Your task to perform on an android device: empty trash in the gmail app Image 0: 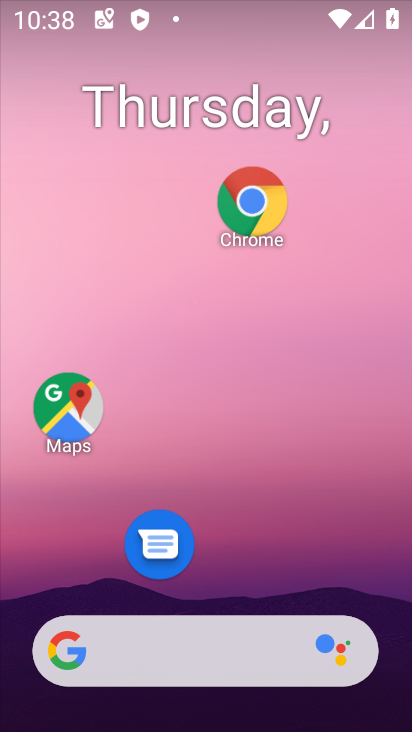
Step 0: click (233, 1)
Your task to perform on an android device: empty trash in the gmail app Image 1: 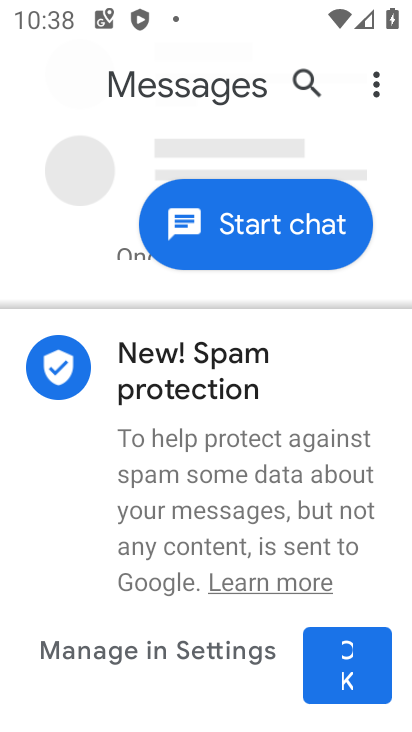
Step 1: press home button
Your task to perform on an android device: empty trash in the gmail app Image 2: 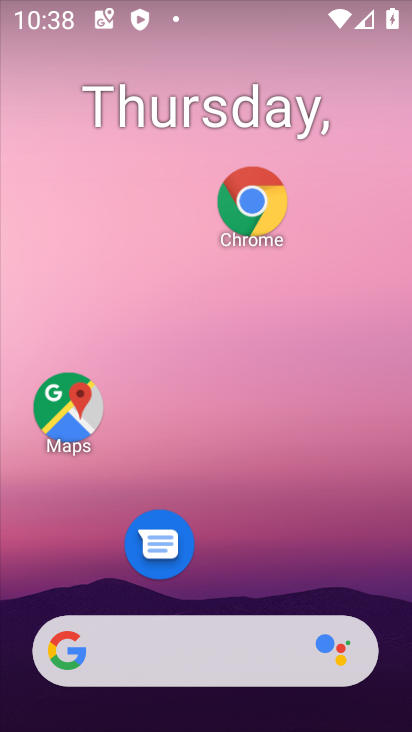
Step 2: drag from (232, 587) to (258, 42)
Your task to perform on an android device: empty trash in the gmail app Image 3: 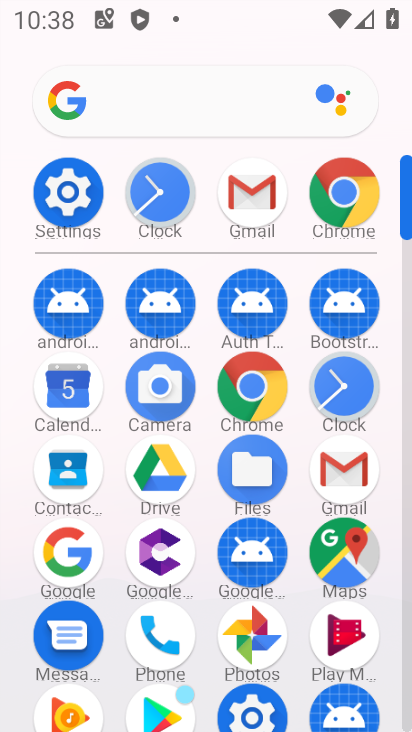
Step 3: click (345, 459)
Your task to perform on an android device: empty trash in the gmail app Image 4: 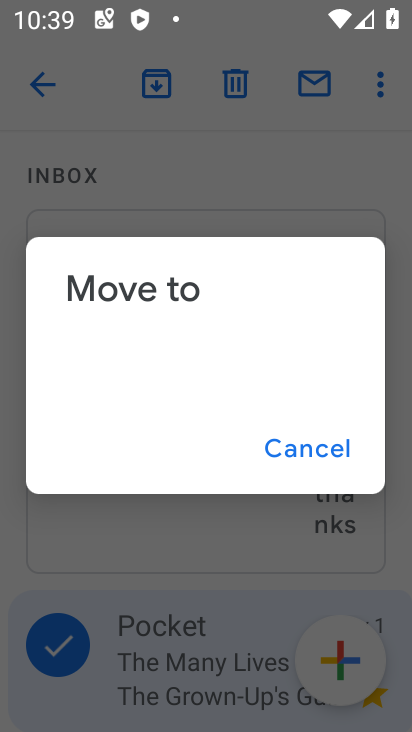
Step 4: click (304, 455)
Your task to perform on an android device: empty trash in the gmail app Image 5: 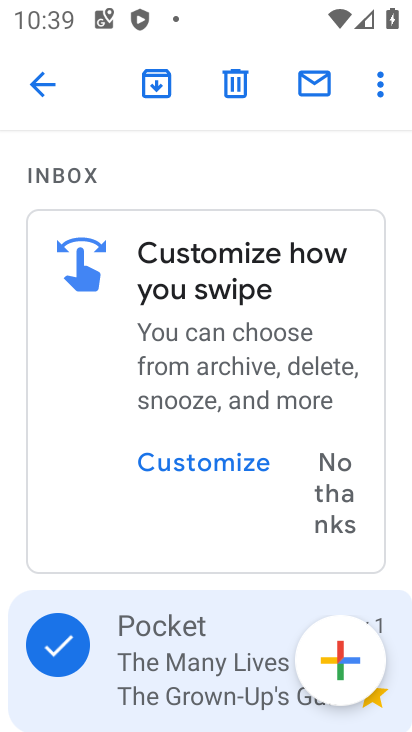
Step 5: click (51, 93)
Your task to perform on an android device: empty trash in the gmail app Image 6: 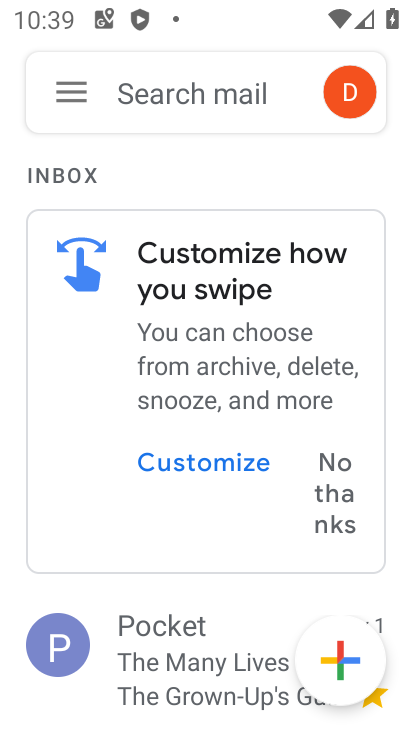
Step 6: click (70, 89)
Your task to perform on an android device: empty trash in the gmail app Image 7: 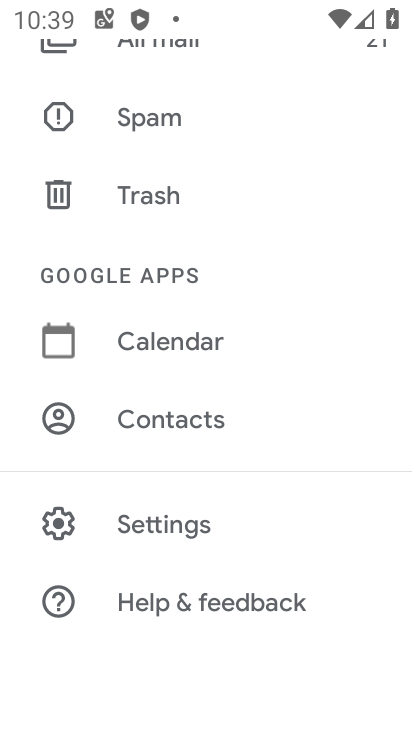
Step 7: click (94, 193)
Your task to perform on an android device: empty trash in the gmail app Image 8: 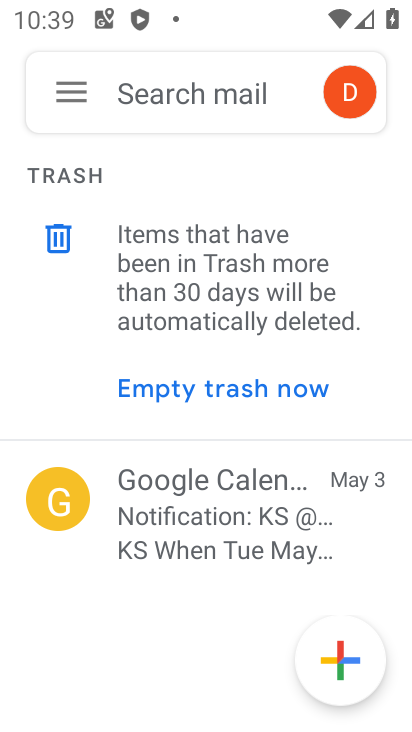
Step 8: click (242, 389)
Your task to perform on an android device: empty trash in the gmail app Image 9: 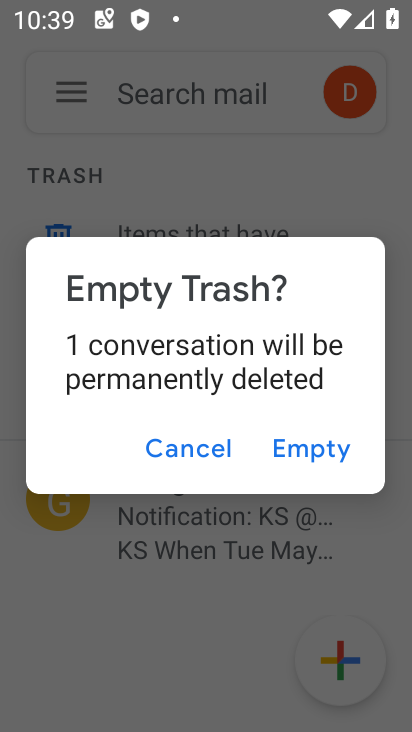
Step 9: click (314, 451)
Your task to perform on an android device: empty trash in the gmail app Image 10: 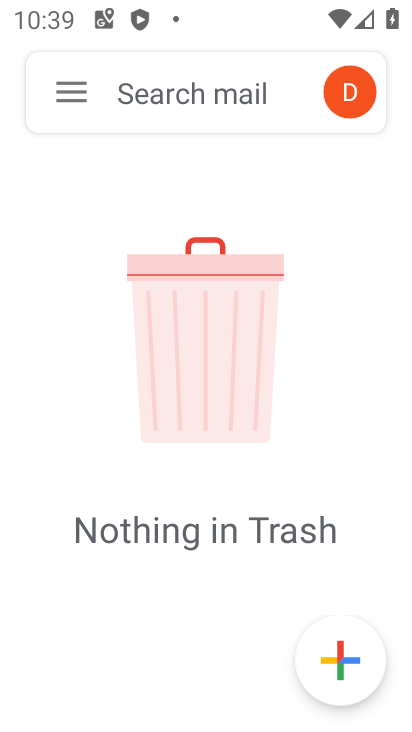
Step 10: task complete